Your task to perform on an android device: turn pop-ups off in chrome Image 0: 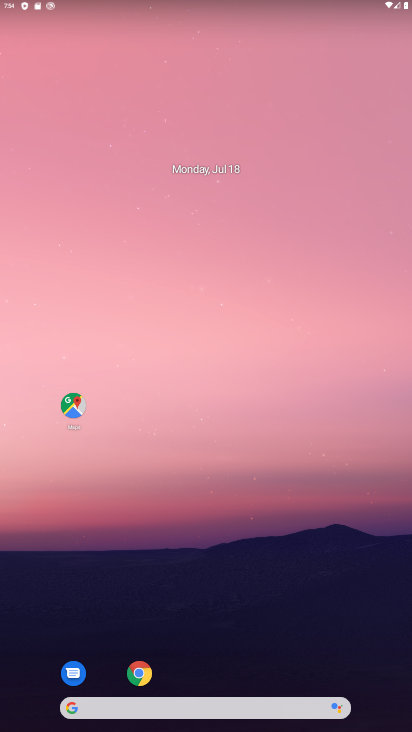
Step 0: click (136, 672)
Your task to perform on an android device: turn pop-ups off in chrome Image 1: 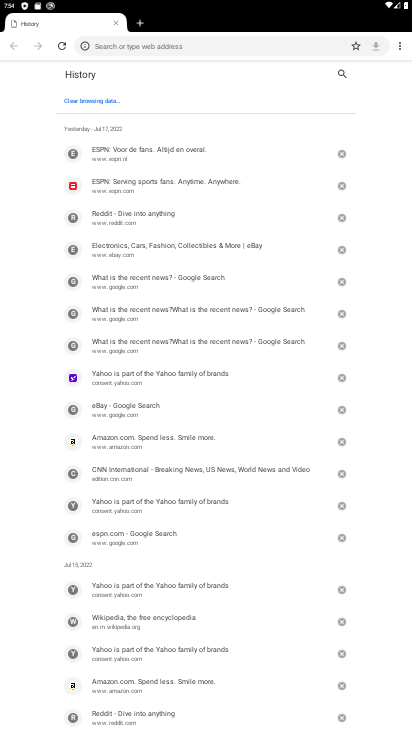
Step 1: click (395, 46)
Your task to perform on an android device: turn pop-ups off in chrome Image 2: 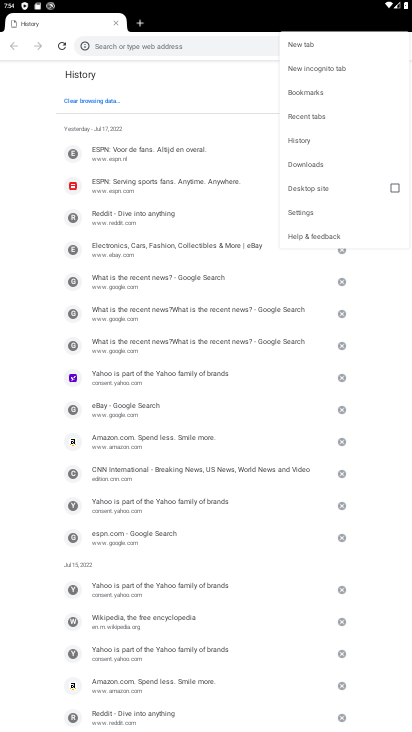
Step 2: click (303, 213)
Your task to perform on an android device: turn pop-ups off in chrome Image 3: 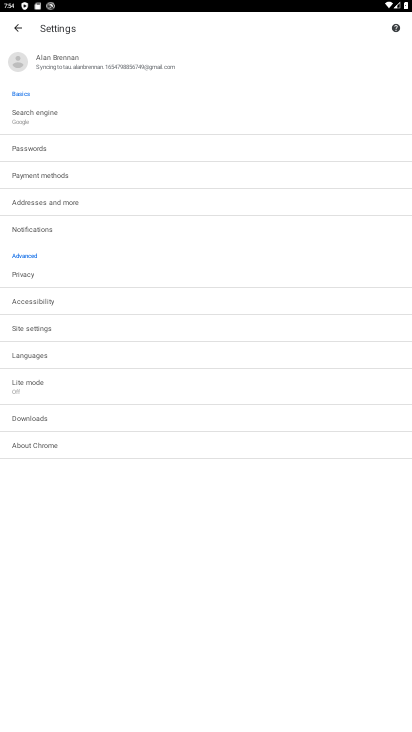
Step 3: click (40, 325)
Your task to perform on an android device: turn pop-ups off in chrome Image 4: 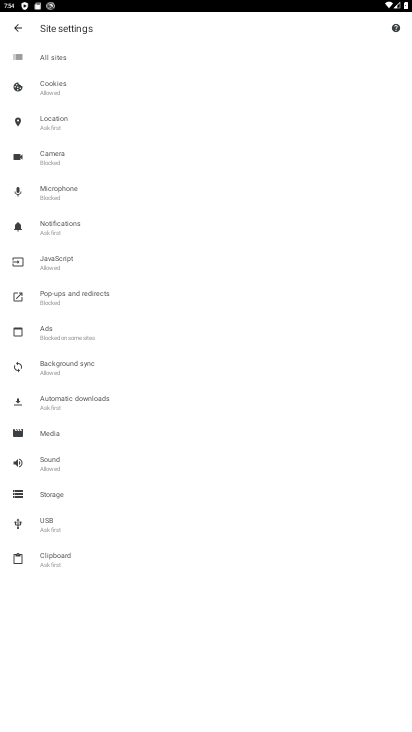
Step 4: click (69, 303)
Your task to perform on an android device: turn pop-ups off in chrome Image 5: 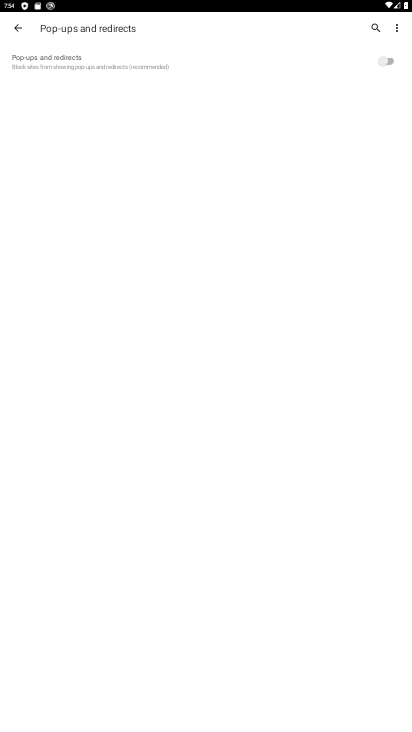
Step 5: task complete